Your task to perform on an android device: read, delete, or share a saved page in the chrome app Image 0: 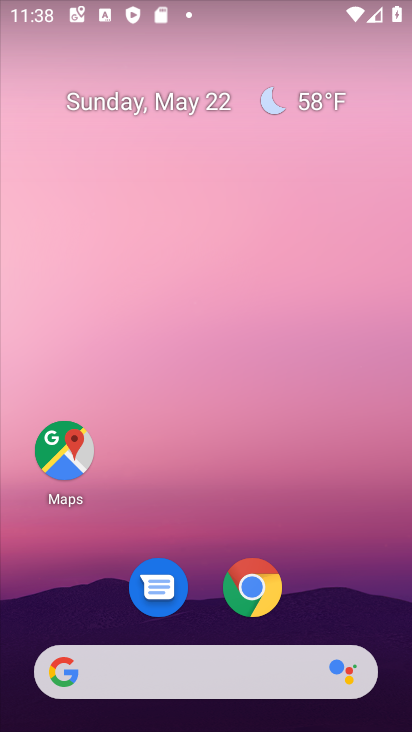
Step 0: click (259, 583)
Your task to perform on an android device: read, delete, or share a saved page in the chrome app Image 1: 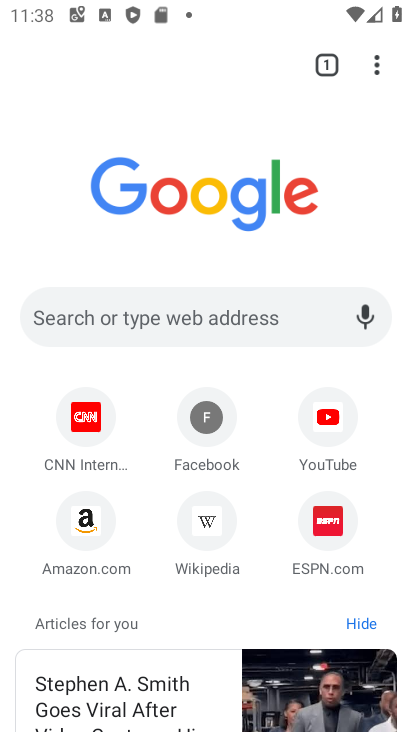
Step 1: click (371, 57)
Your task to perform on an android device: read, delete, or share a saved page in the chrome app Image 2: 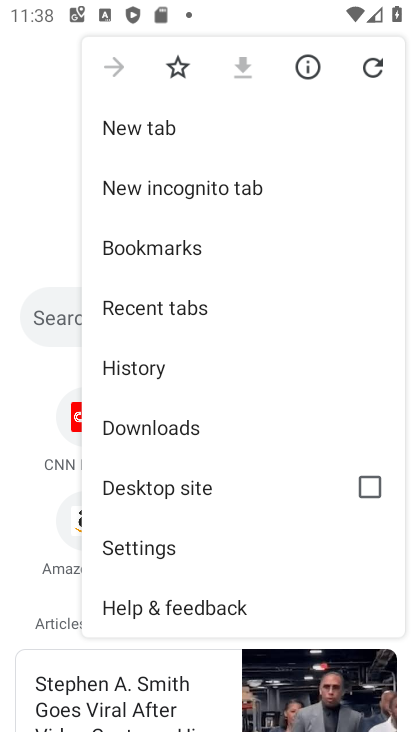
Step 2: click (161, 417)
Your task to perform on an android device: read, delete, or share a saved page in the chrome app Image 3: 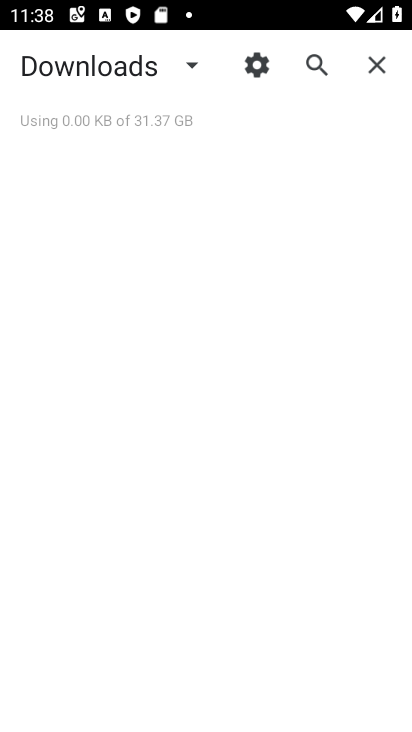
Step 3: task complete